Your task to perform on an android device: delete browsing data in the chrome app Image 0: 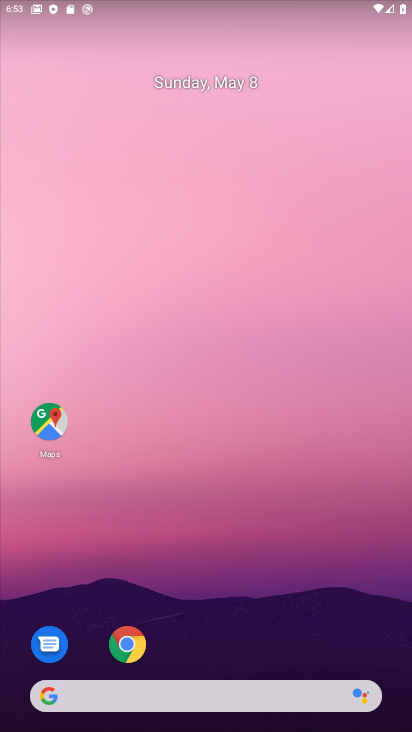
Step 0: click (124, 641)
Your task to perform on an android device: delete browsing data in the chrome app Image 1: 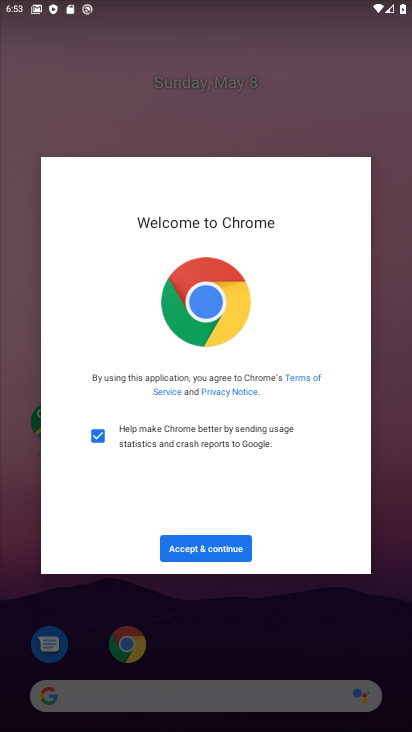
Step 1: click (211, 541)
Your task to perform on an android device: delete browsing data in the chrome app Image 2: 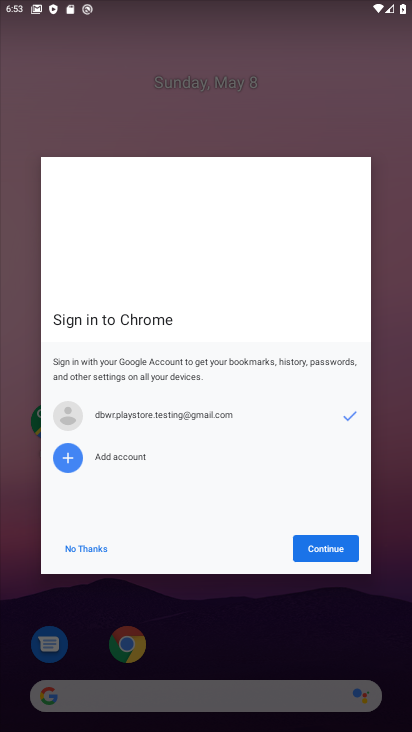
Step 2: click (322, 538)
Your task to perform on an android device: delete browsing data in the chrome app Image 3: 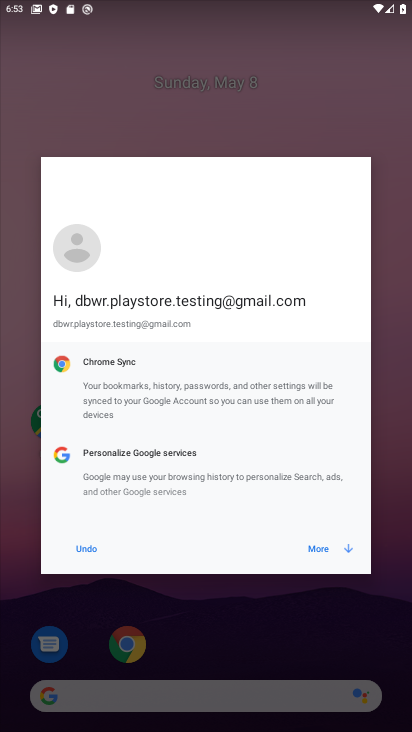
Step 3: click (305, 541)
Your task to perform on an android device: delete browsing data in the chrome app Image 4: 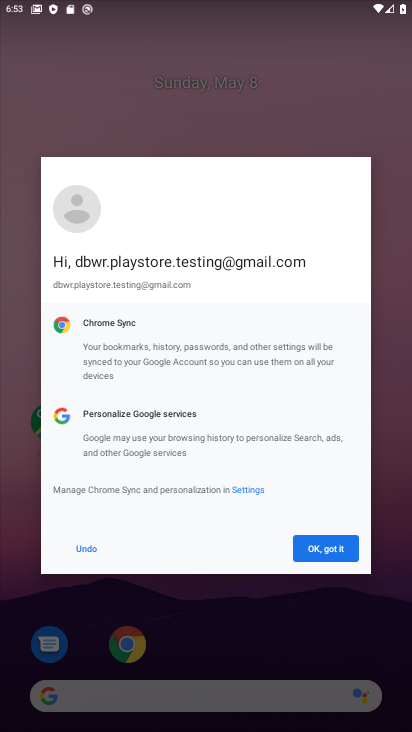
Step 4: click (305, 541)
Your task to perform on an android device: delete browsing data in the chrome app Image 5: 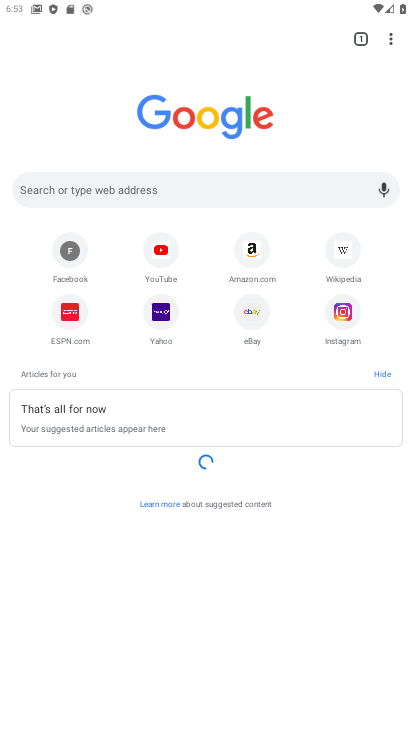
Step 5: click (386, 39)
Your task to perform on an android device: delete browsing data in the chrome app Image 6: 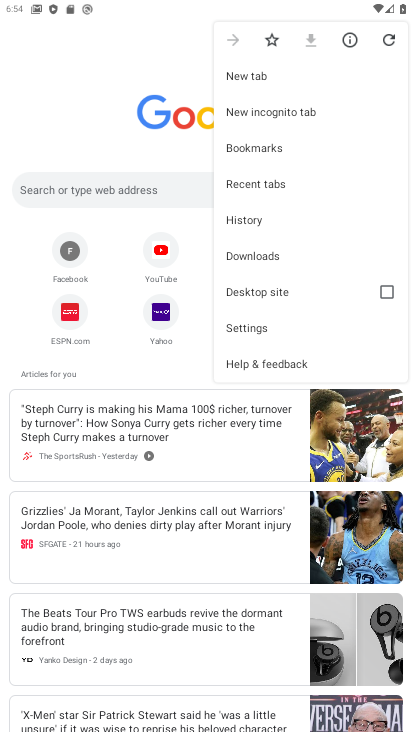
Step 6: click (294, 222)
Your task to perform on an android device: delete browsing data in the chrome app Image 7: 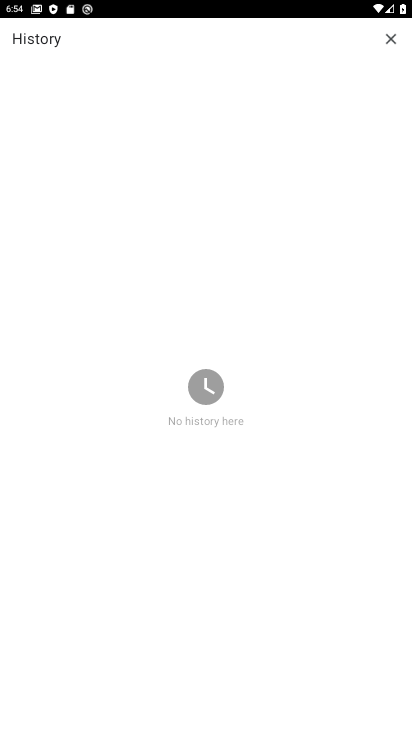
Step 7: task complete